Your task to perform on an android device: show emergency info Image 0: 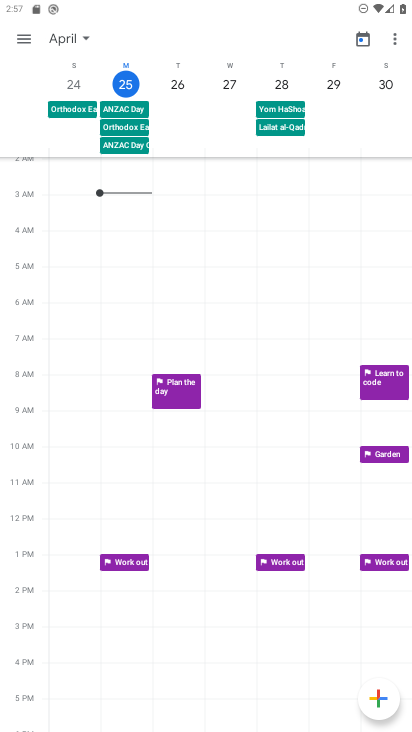
Step 0: press home button
Your task to perform on an android device: show emergency info Image 1: 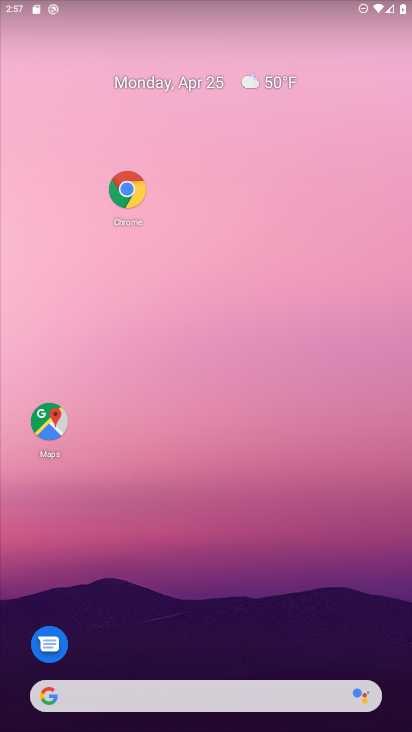
Step 1: drag from (179, 635) to (199, 163)
Your task to perform on an android device: show emergency info Image 2: 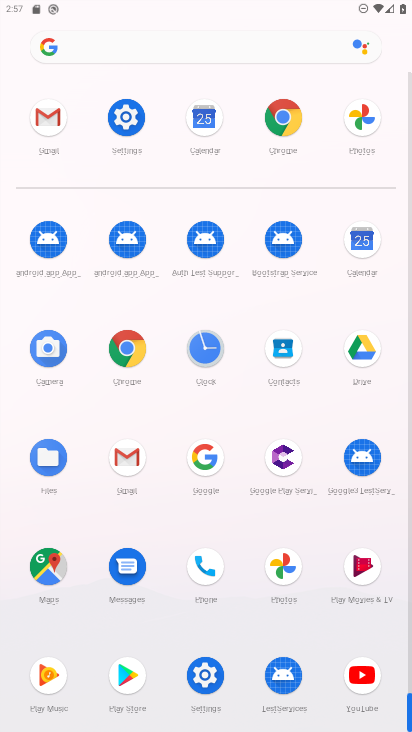
Step 2: click (205, 679)
Your task to perform on an android device: show emergency info Image 3: 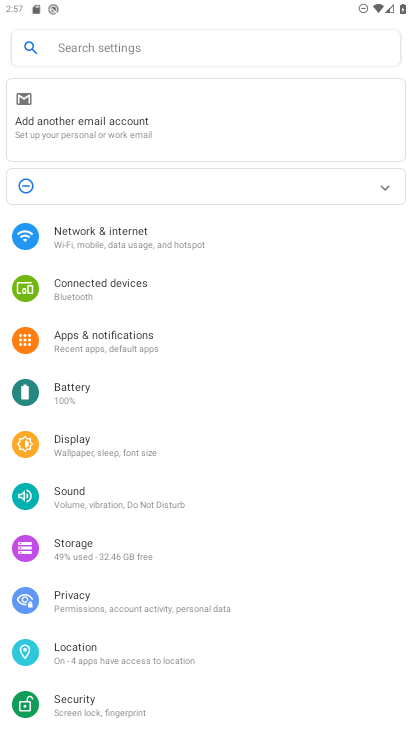
Step 3: drag from (134, 679) to (188, 281)
Your task to perform on an android device: show emergency info Image 4: 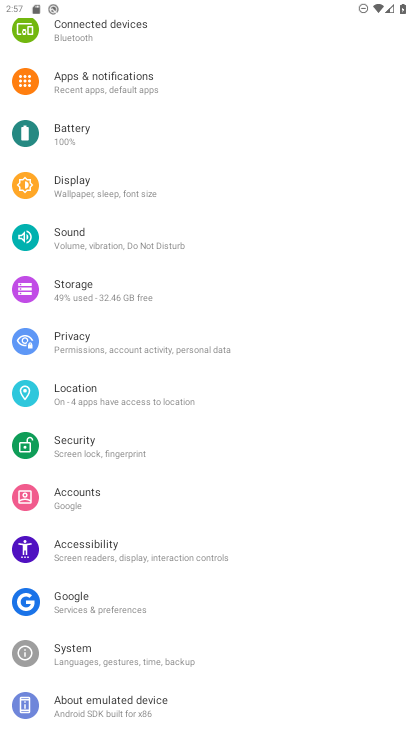
Step 4: click (126, 709)
Your task to perform on an android device: show emergency info Image 5: 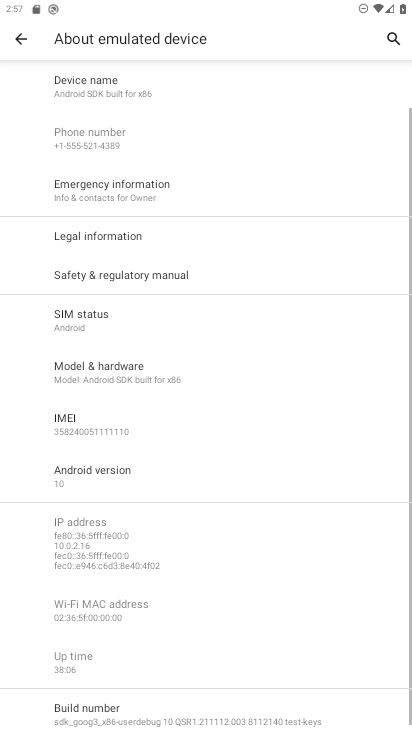
Step 5: click (171, 187)
Your task to perform on an android device: show emergency info Image 6: 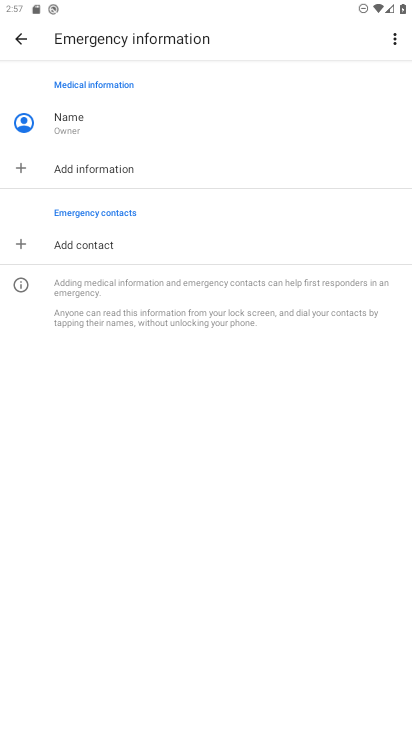
Step 6: task complete